Your task to perform on an android device: open app "Reddit" (install if not already installed) Image 0: 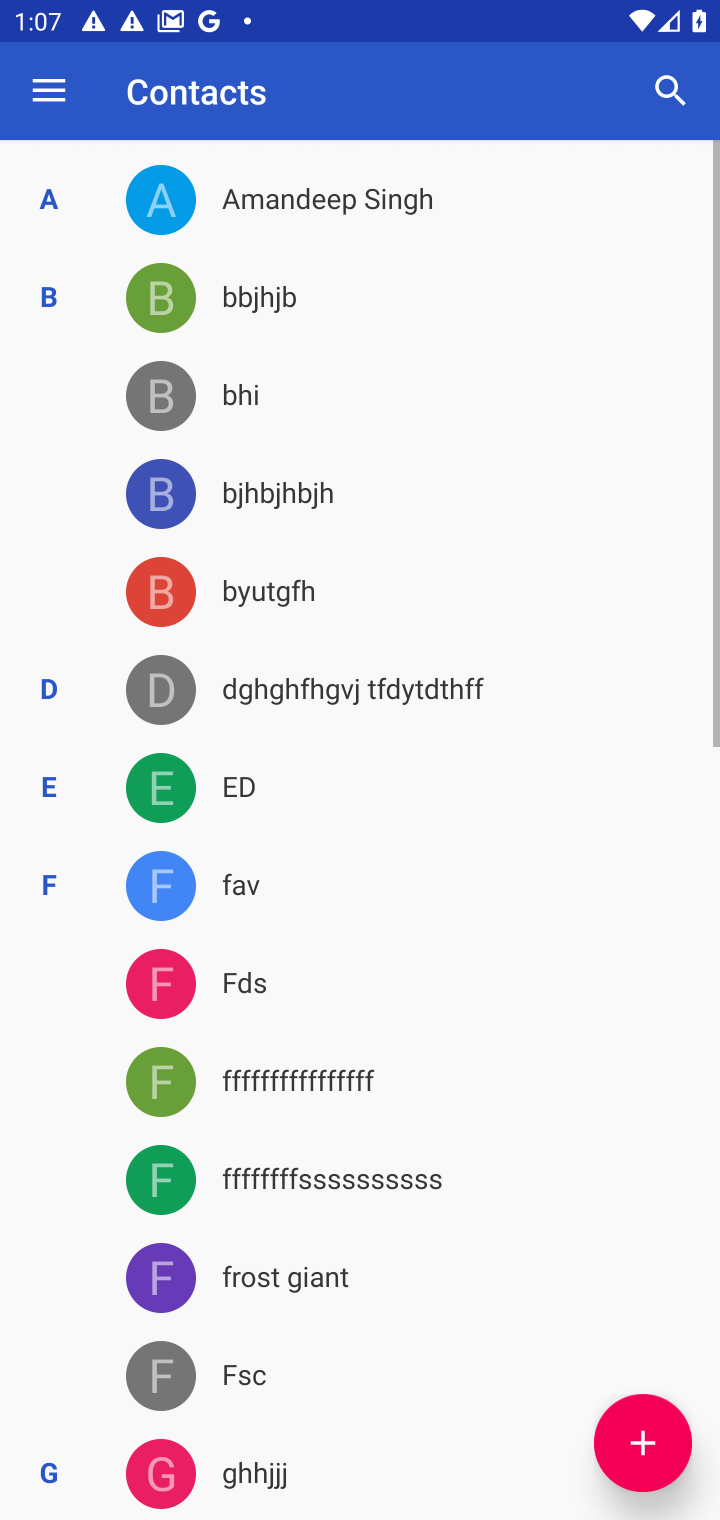
Step 0: press home button
Your task to perform on an android device: open app "Reddit" (install if not already installed) Image 1: 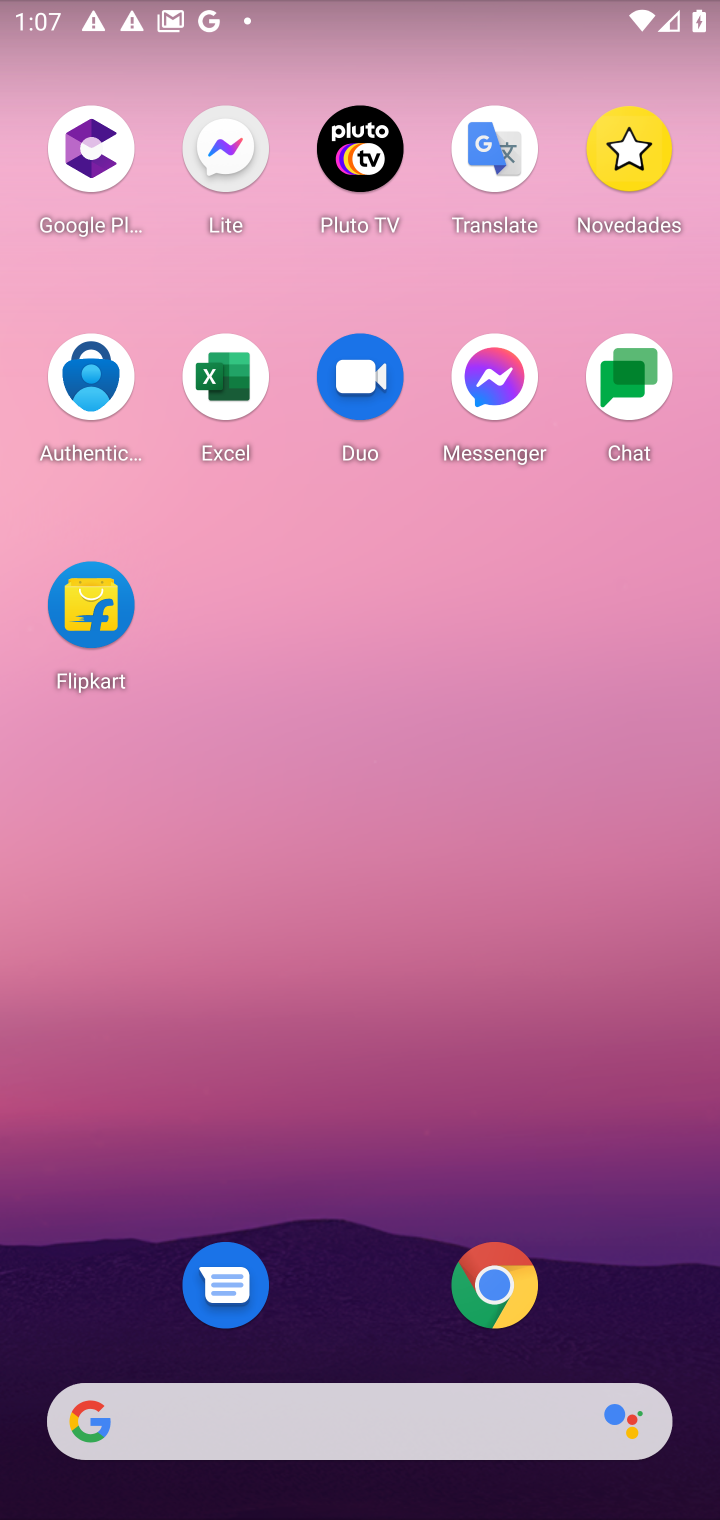
Step 1: drag from (386, 1288) to (459, 459)
Your task to perform on an android device: open app "Reddit" (install if not already installed) Image 2: 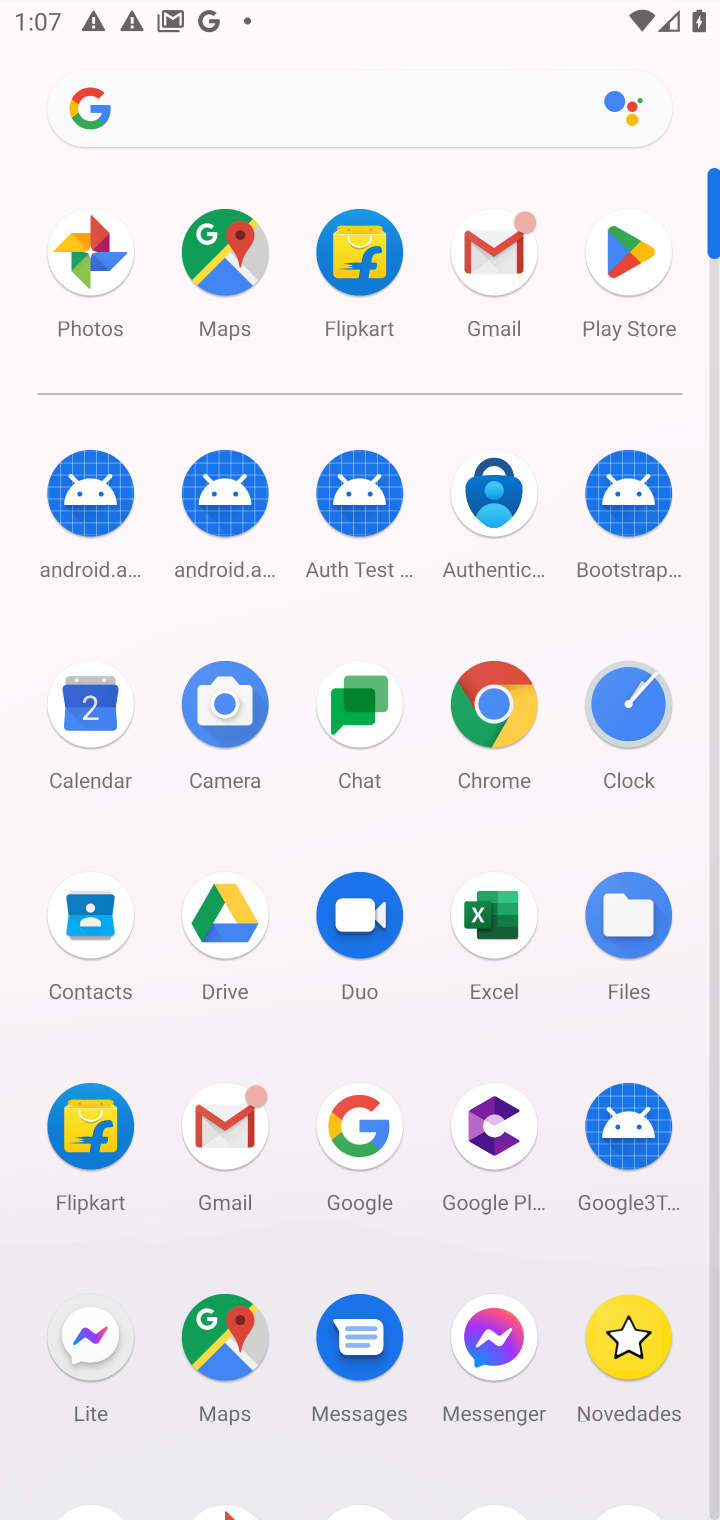
Step 2: drag from (538, 1263) to (567, 587)
Your task to perform on an android device: open app "Reddit" (install if not already installed) Image 3: 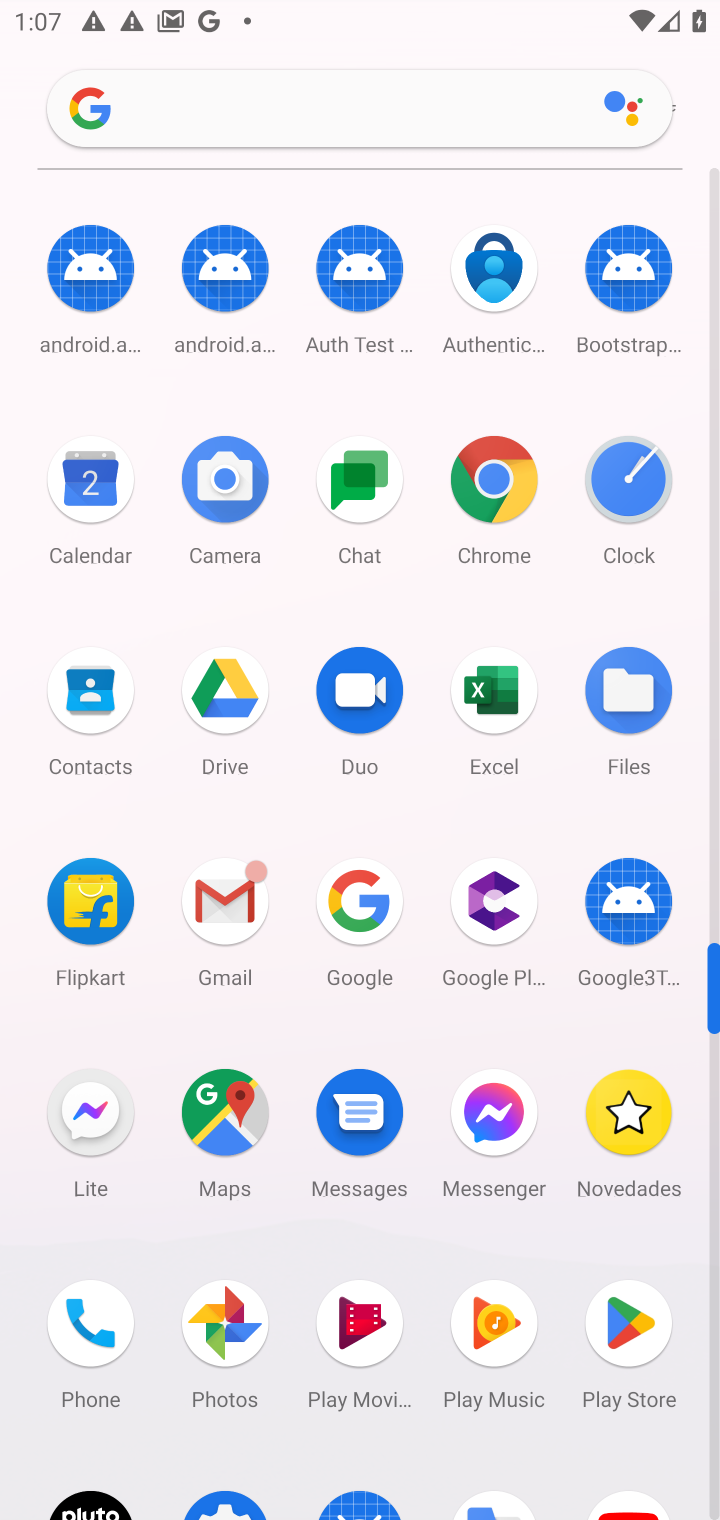
Step 3: click (620, 1325)
Your task to perform on an android device: open app "Reddit" (install if not already installed) Image 4: 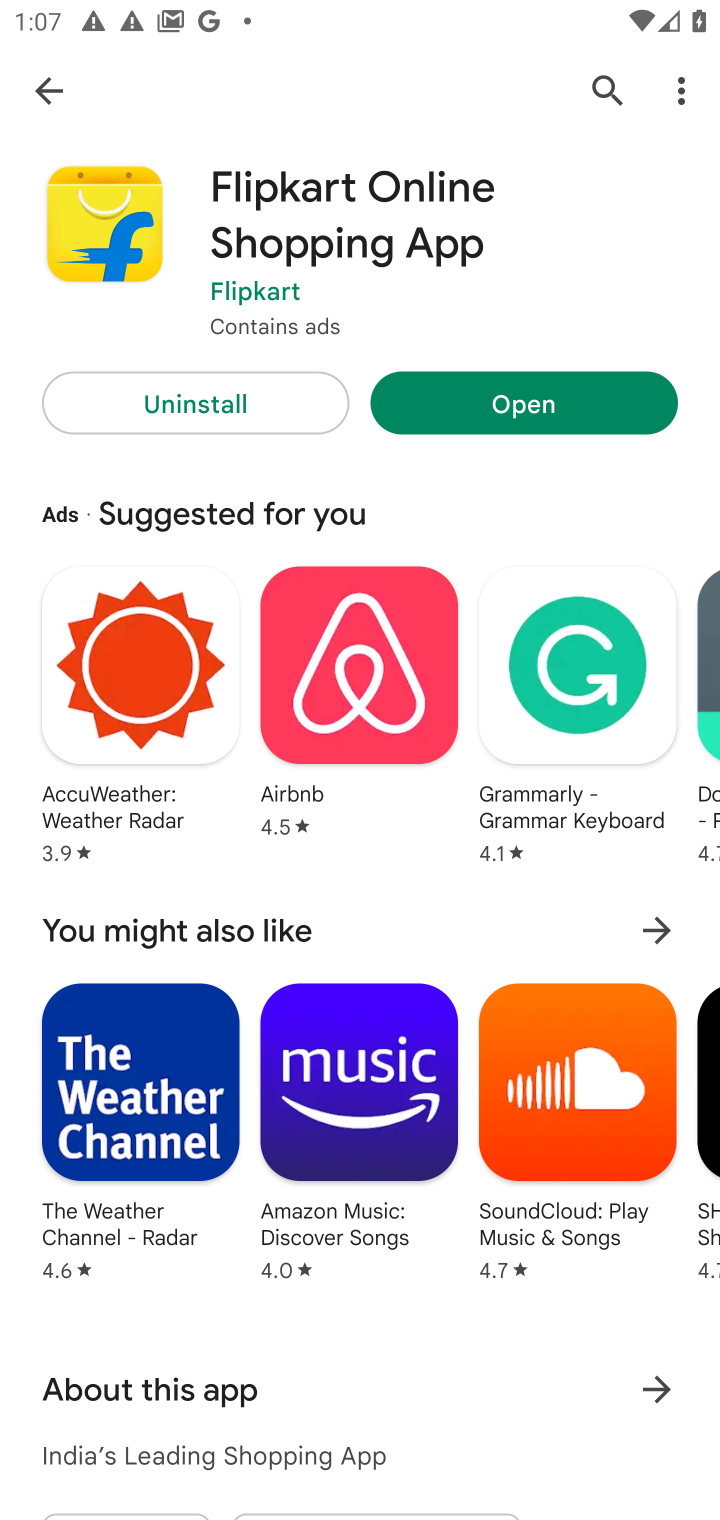
Step 4: click (615, 89)
Your task to perform on an android device: open app "Reddit" (install if not already installed) Image 5: 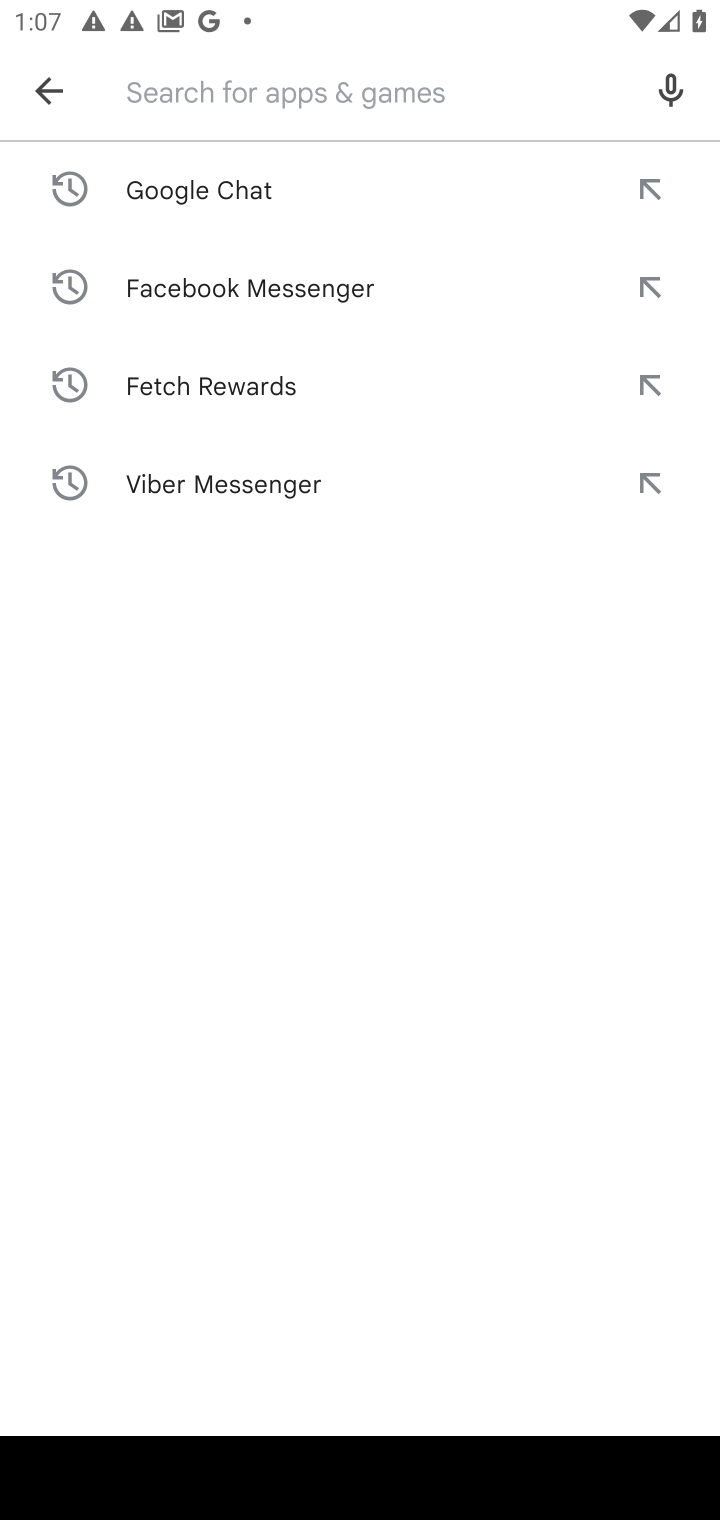
Step 5: type "Reddit"
Your task to perform on an android device: open app "Reddit" (install if not already installed) Image 6: 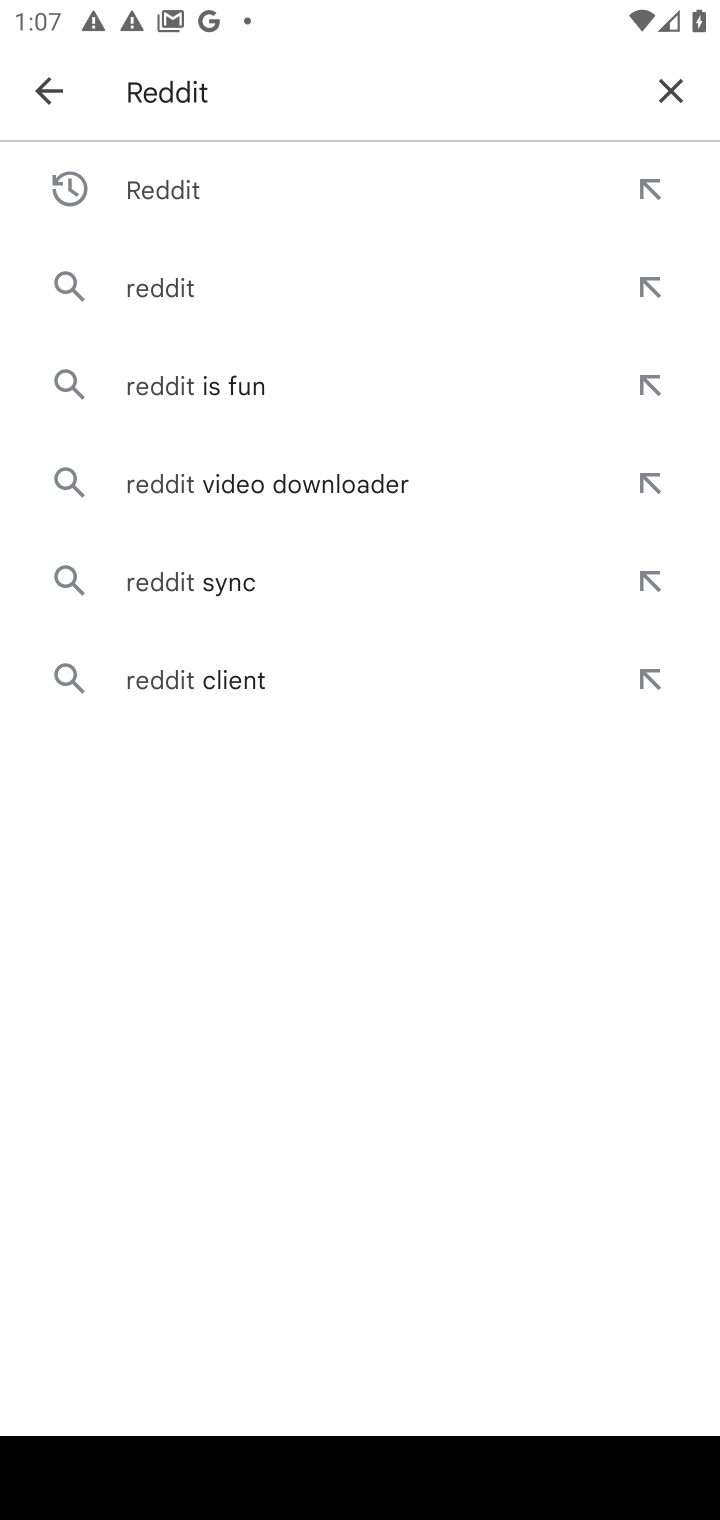
Step 6: press enter
Your task to perform on an android device: open app "Reddit" (install if not already installed) Image 7: 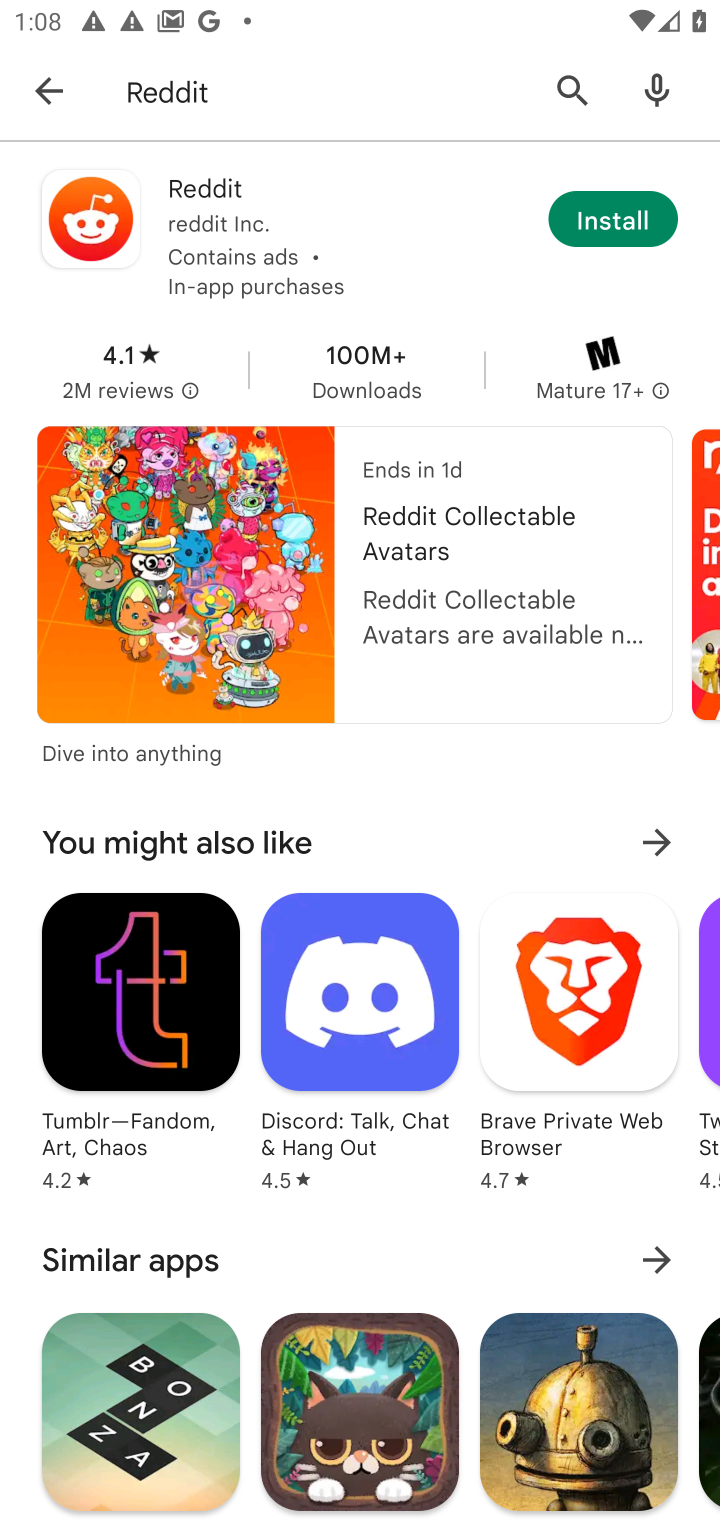
Step 7: click (605, 210)
Your task to perform on an android device: open app "Reddit" (install if not already installed) Image 8: 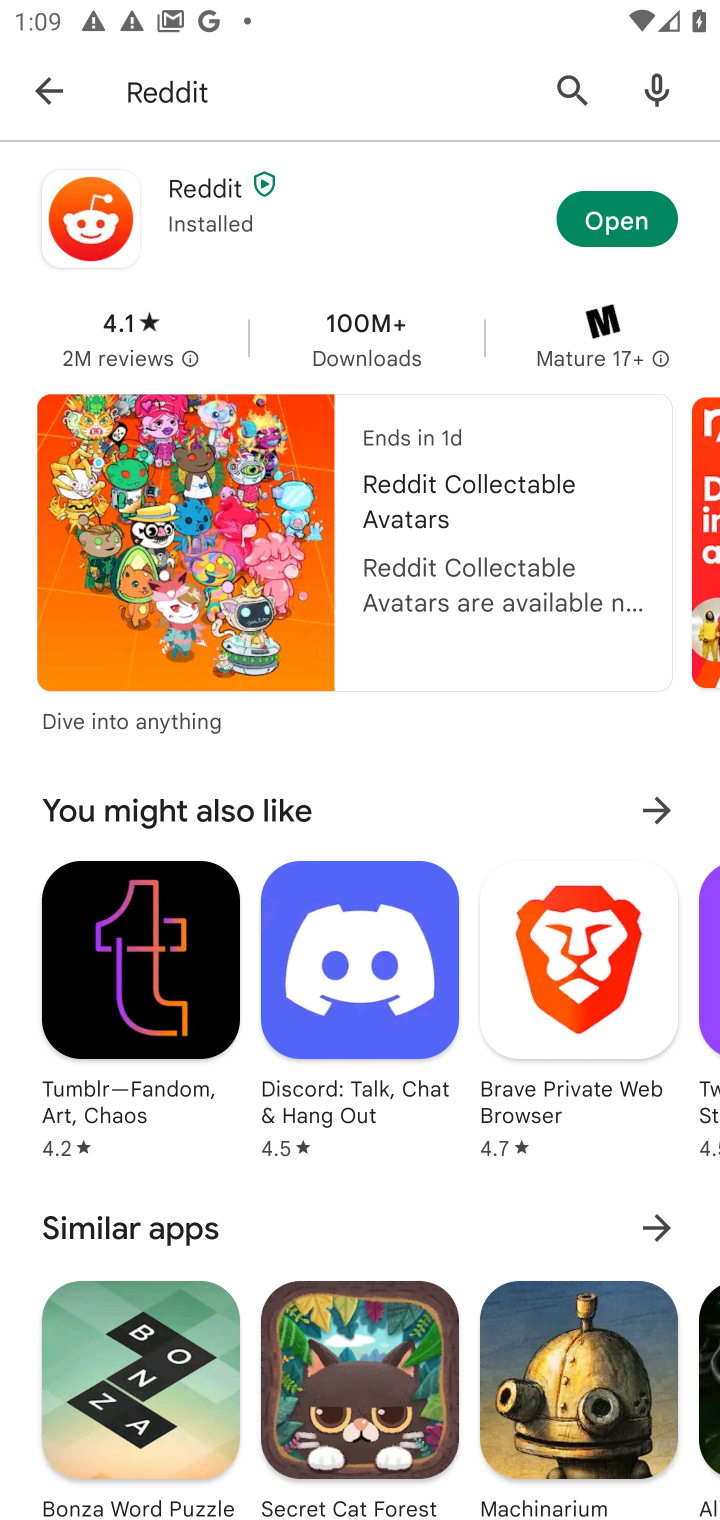
Step 8: click (632, 210)
Your task to perform on an android device: open app "Reddit" (install if not already installed) Image 9: 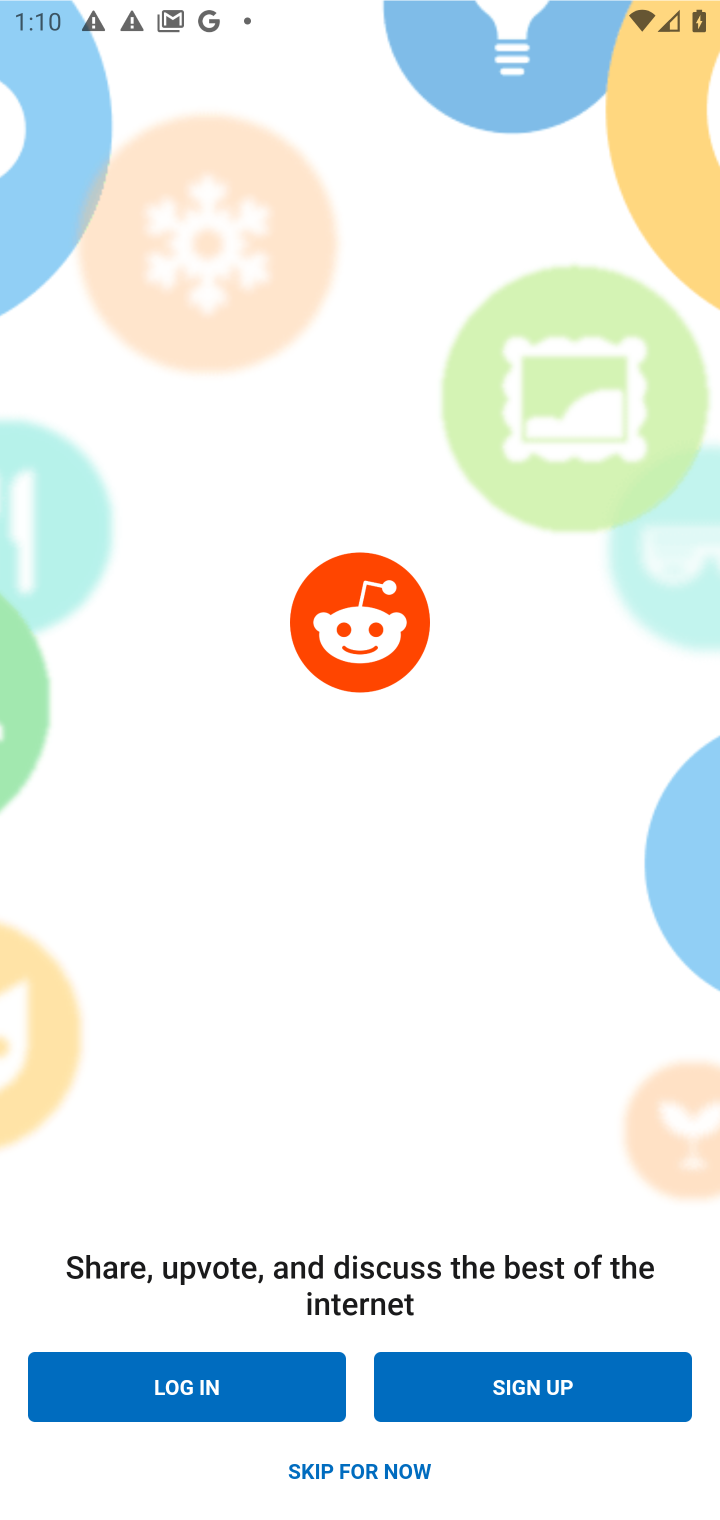
Step 9: press home button
Your task to perform on an android device: open app "Reddit" (install if not already installed) Image 10: 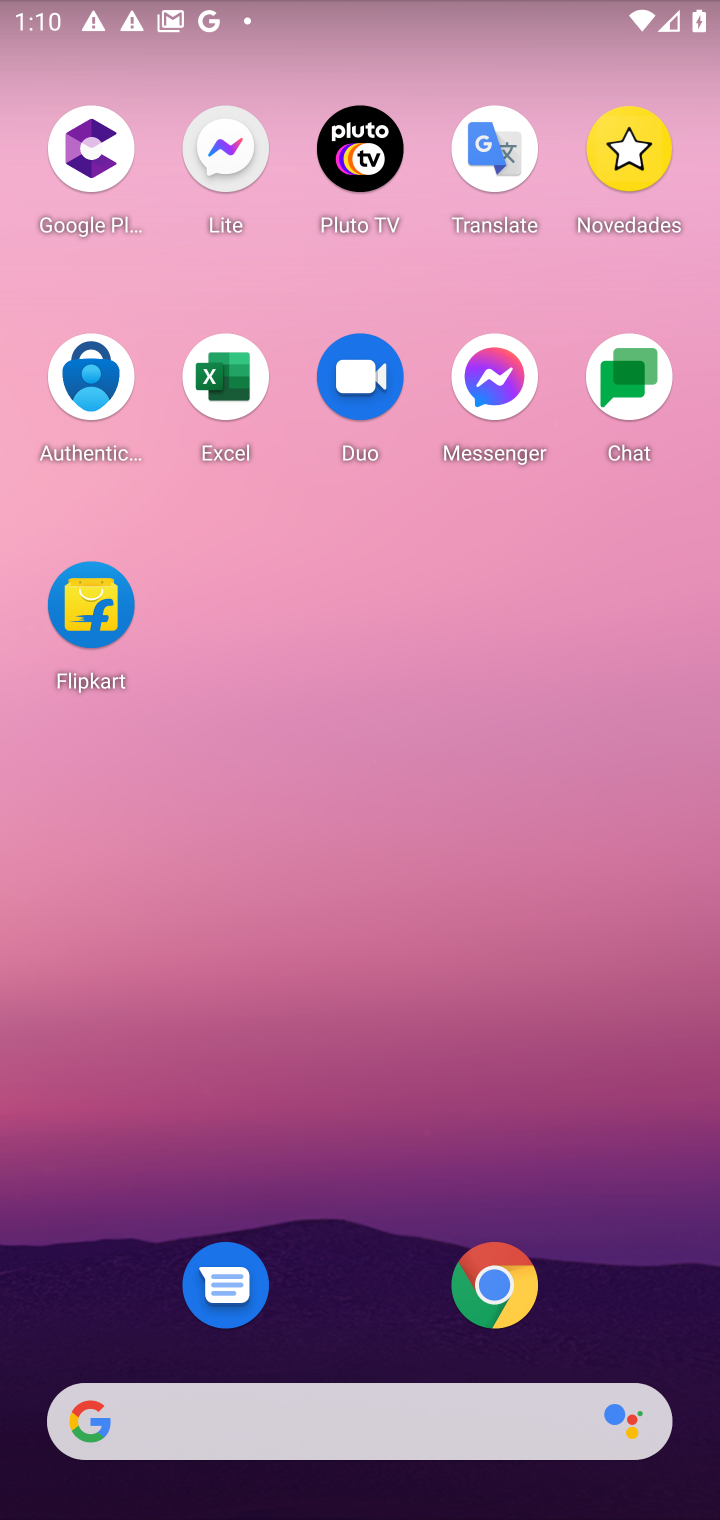
Step 10: drag from (367, 1305) to (501, 333)
Your task to perform on an android device: open app "Reddit" (install if not already installed) Image 11: 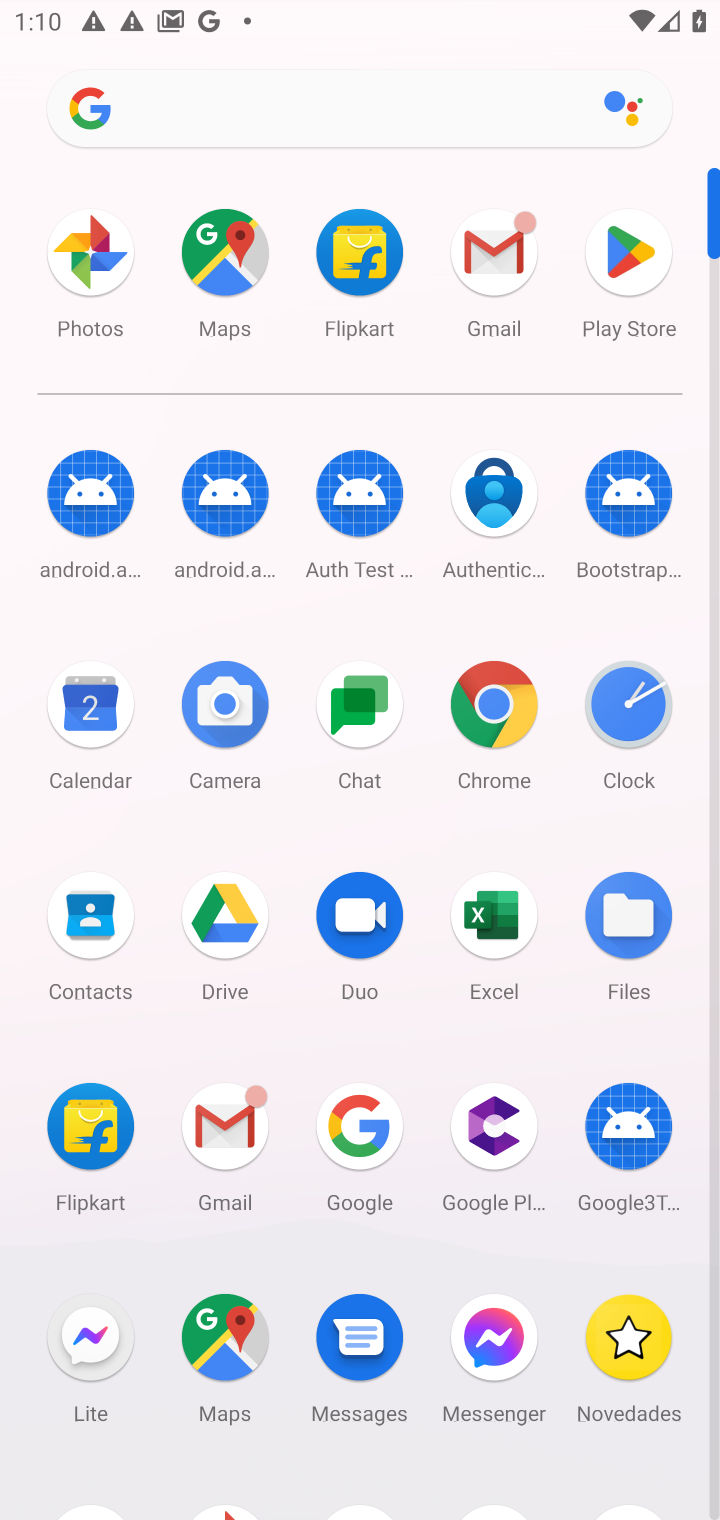
Step 11: drag from (305, 1263) to (411, 379)
Your task to perform on an android device: open app "Reddit" (install if not already installed) Image 12: 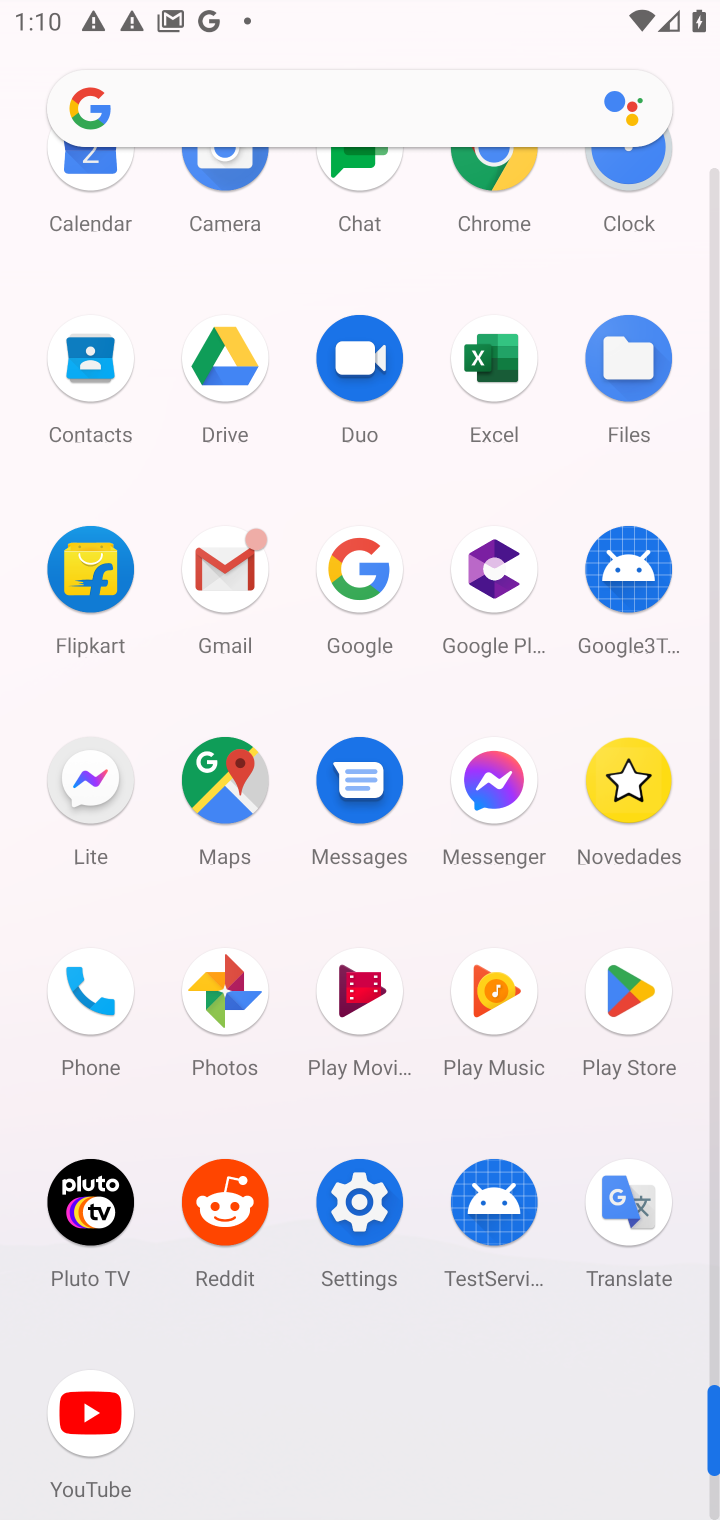
Step 12: click (627, 1001)
Your task to perform on an android device: open app "Reddit" (install if not already installed) Image 13: 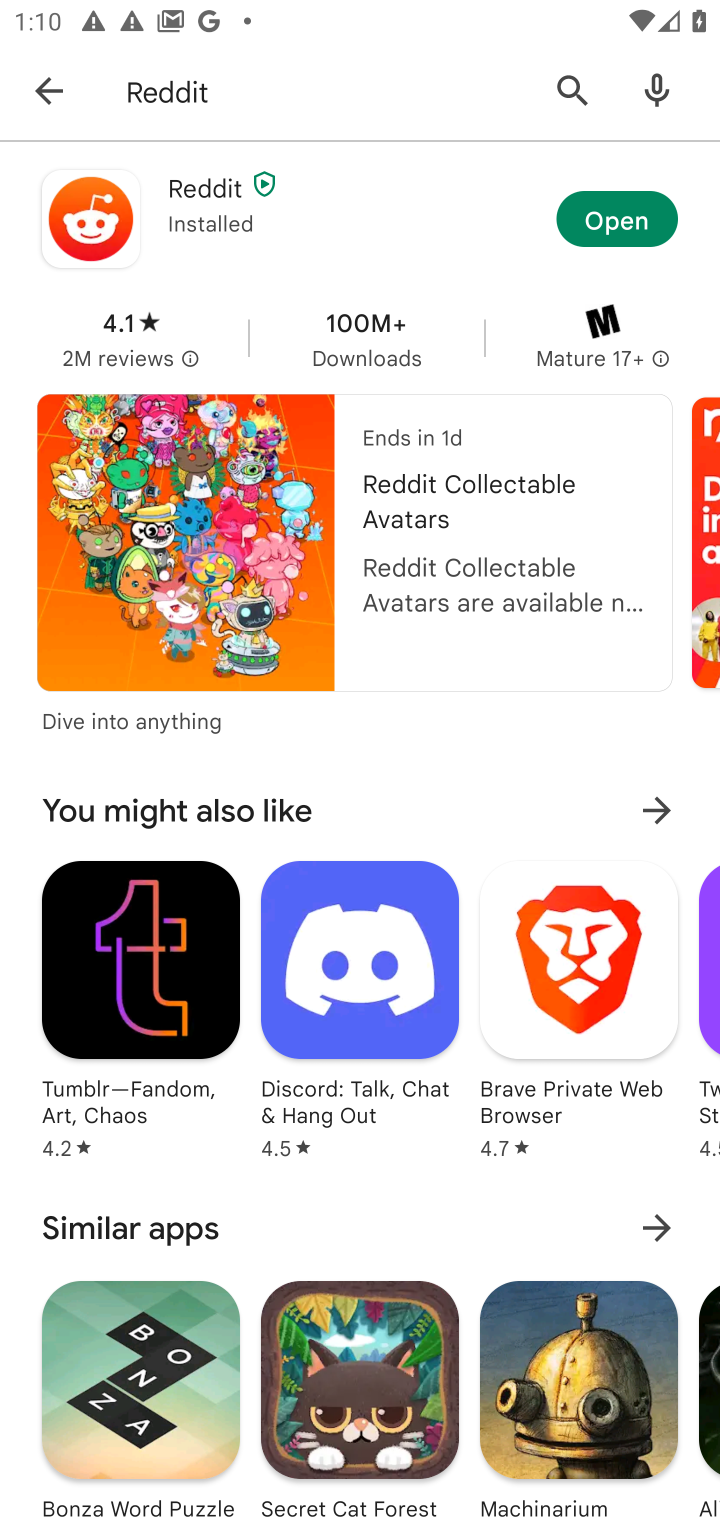
Step 13: click (334, 96)
Your task to perform on an android device: open app "Reddit" (install if not already installed) Image 14: 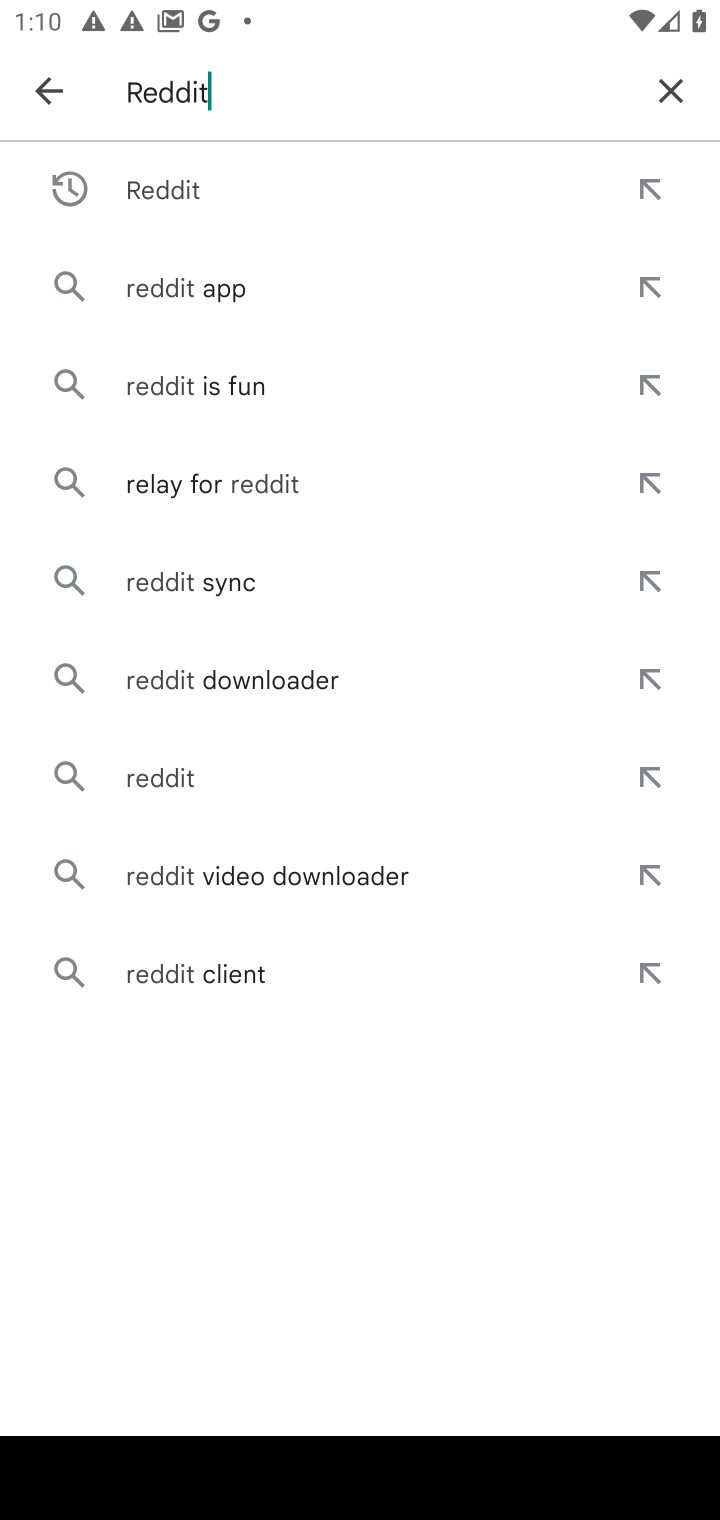
Step 14: click (667, 103)
Your task to perform on an android device: open app "Reddit" (install if not already installed) Image 15: 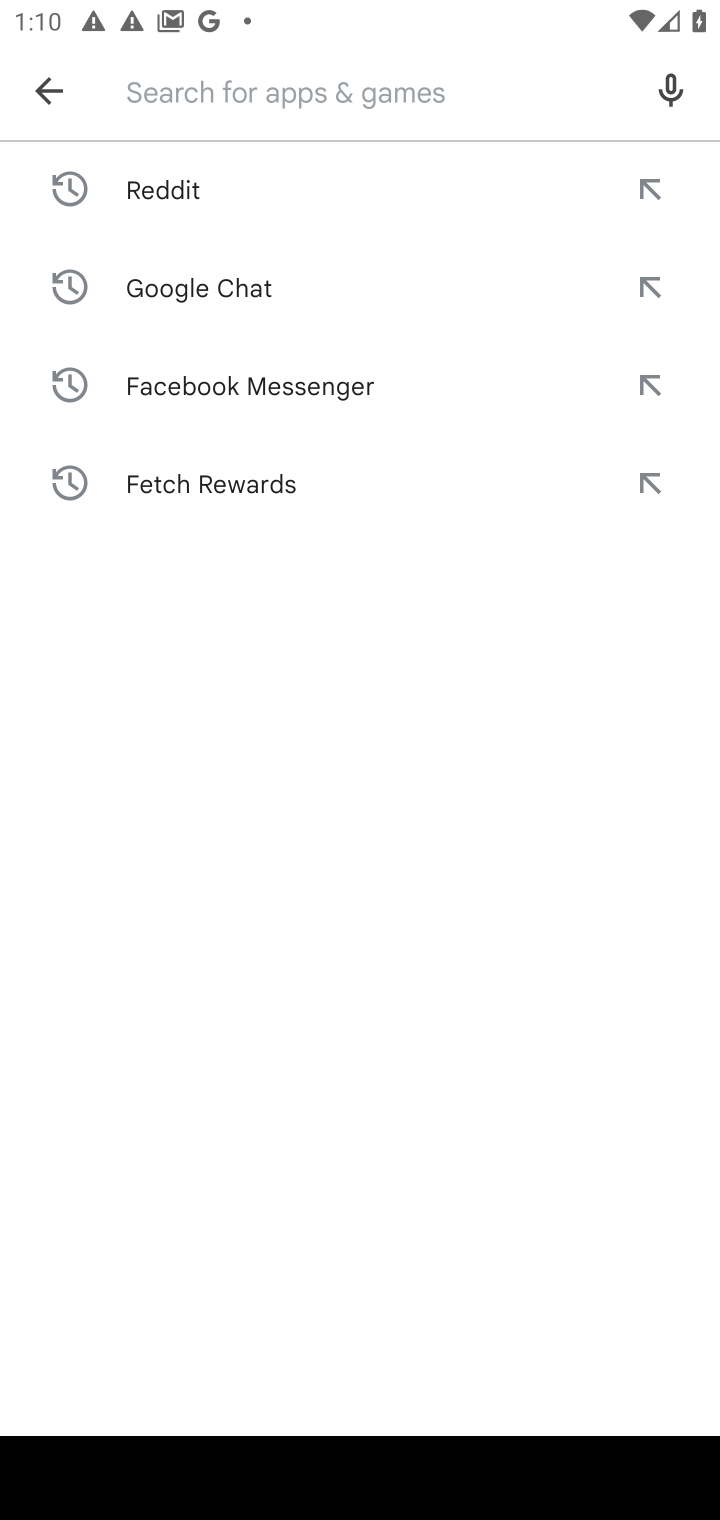
Step 15: type "Reddit"
Your task to perform on an android device: open app "Reddit" (install if not already installed) Image 16: 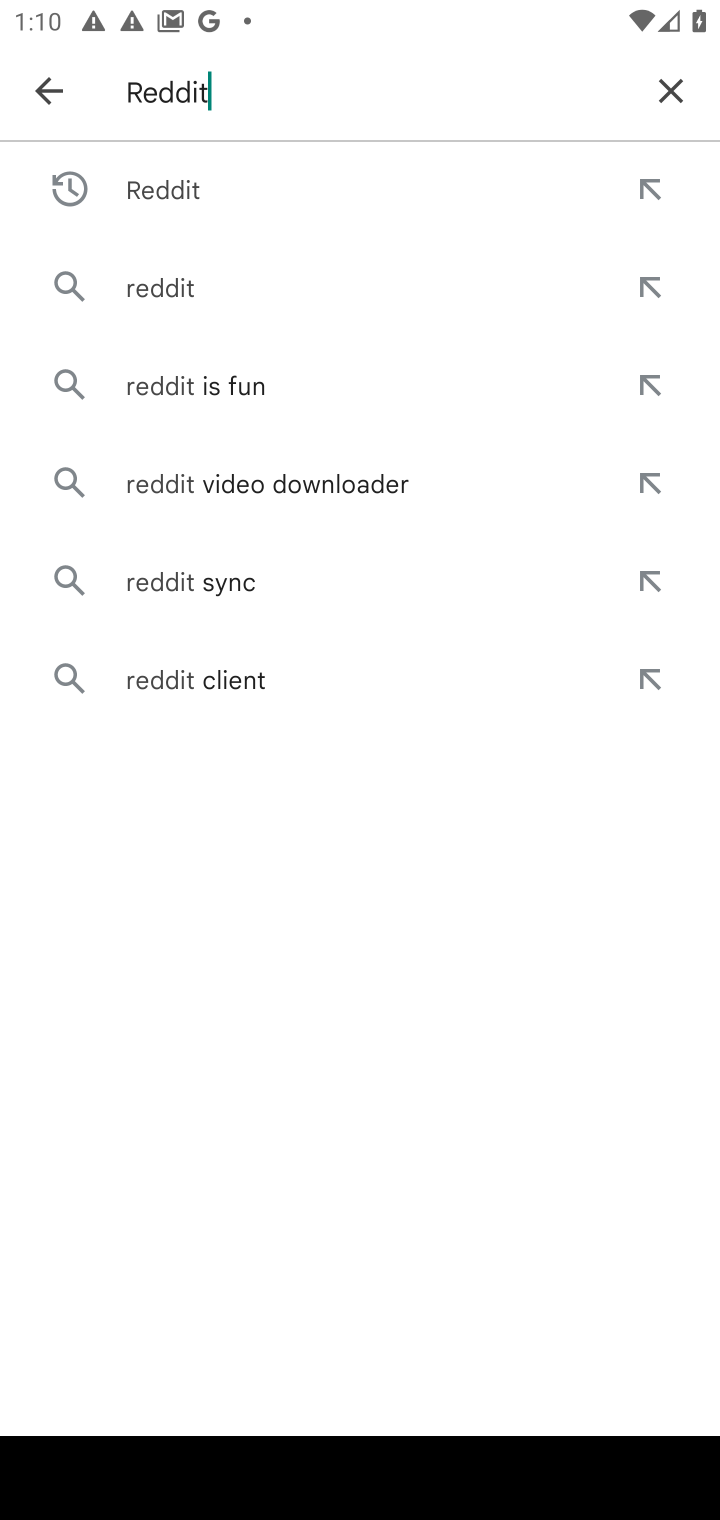
Step 16: press enter
Your task to perform on an android device: open app "Reddit" (install if not already installed) Image 17: 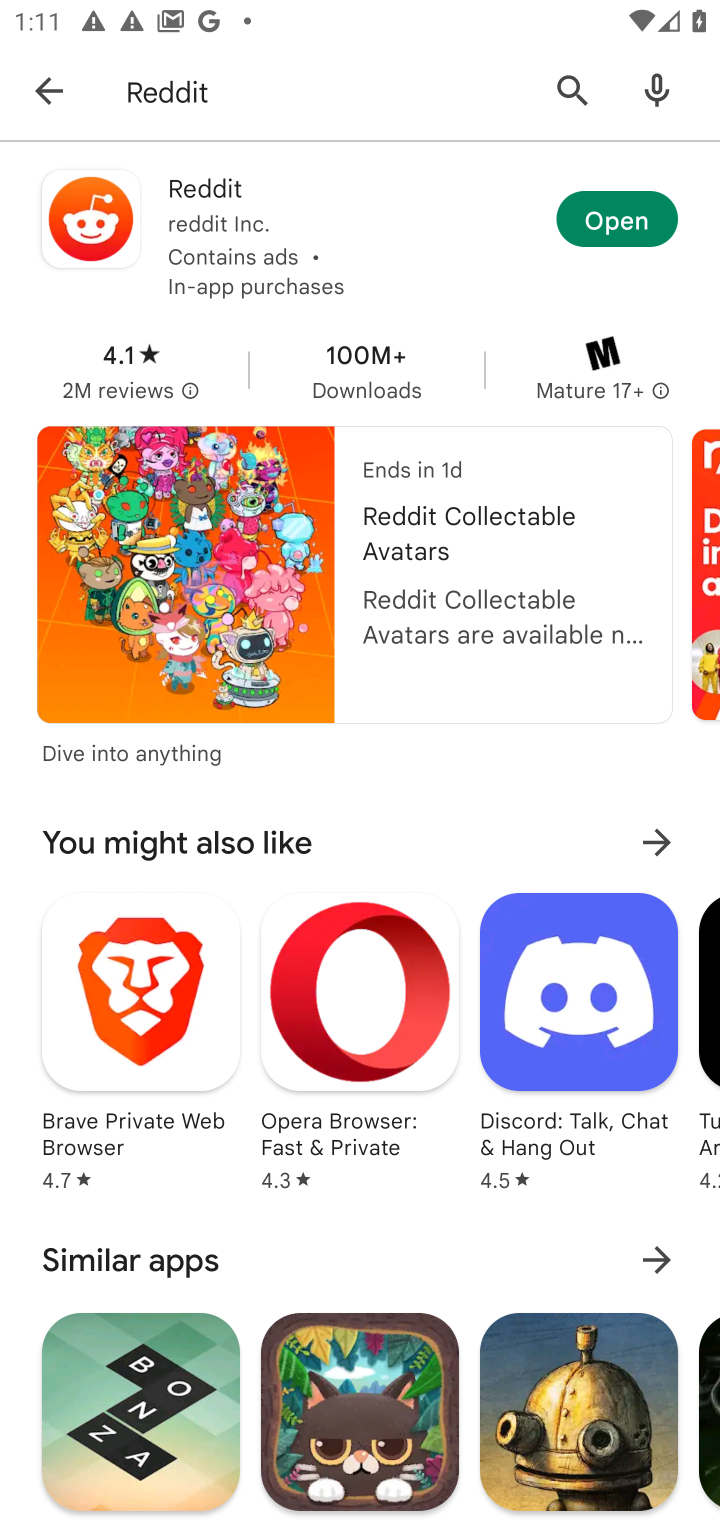
Step 17: click (579, 216)
Your task to perform on an android device: open app "Reddit" (install if not already installed) Image 18: 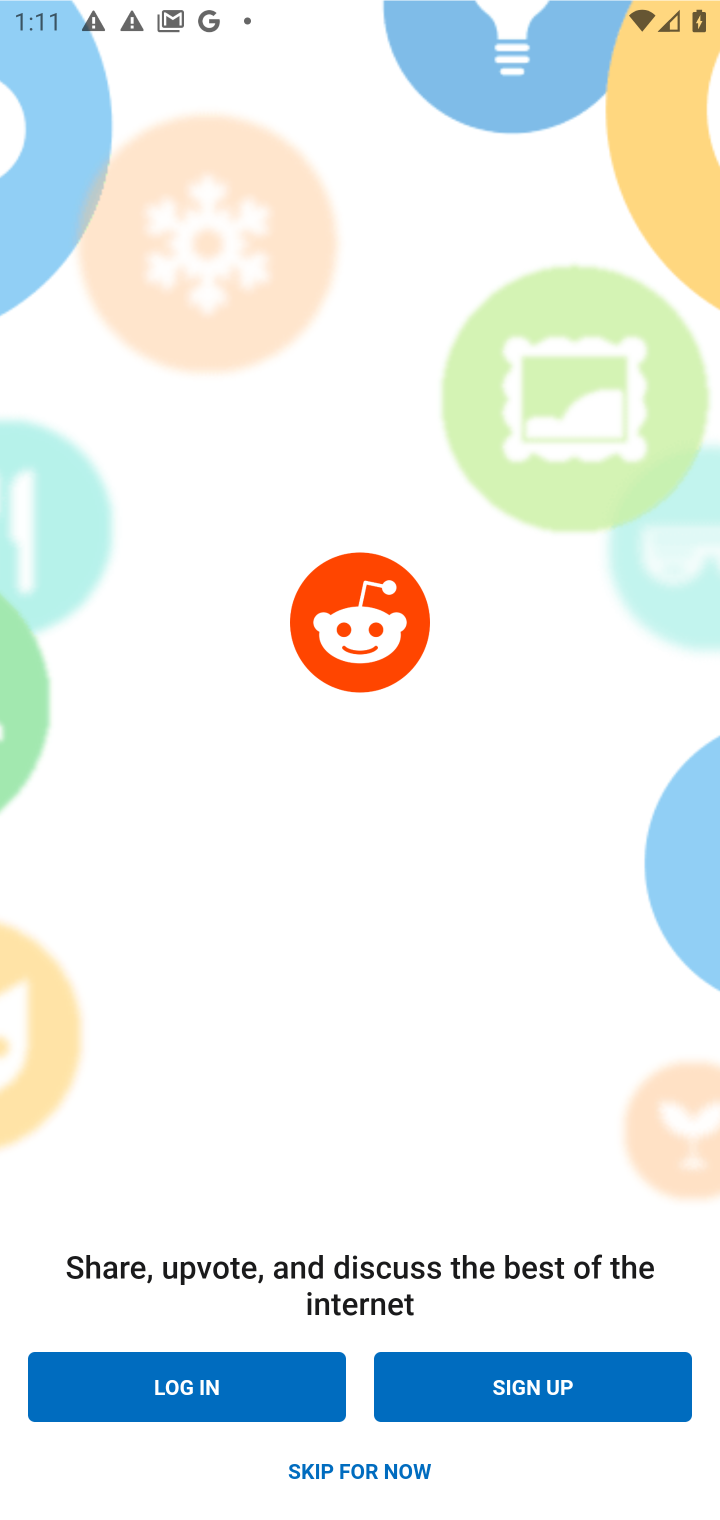
Step 18: task complete